Your task to perform on an android device: toggle javascript in the chrome app Image 0: 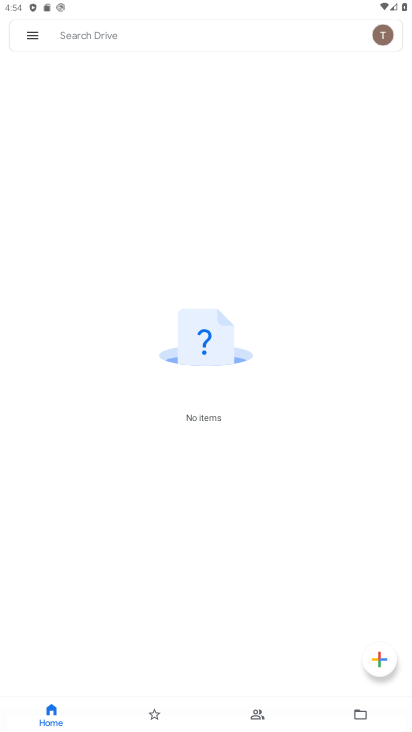
Step 0: press home button
Your task to perform on an android device: toggle javascript in the chrome app Image 1: 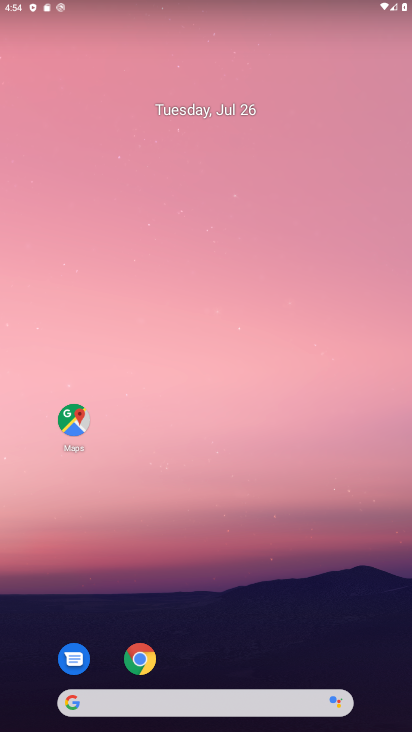
Step 1: drag from (248, 648) to (244, 16)
Your task to perform on an android device: toggle javascript in the chrome app Image 2: 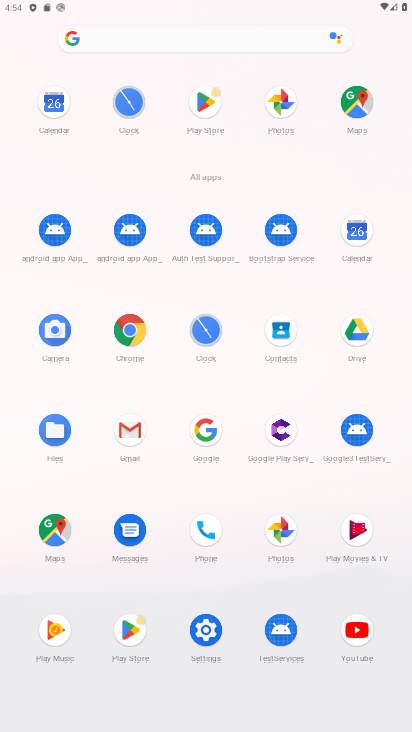
Step 2: click (131, 328)
Your task to perform on an android device: toggle javascript in the chrome app Image 3: 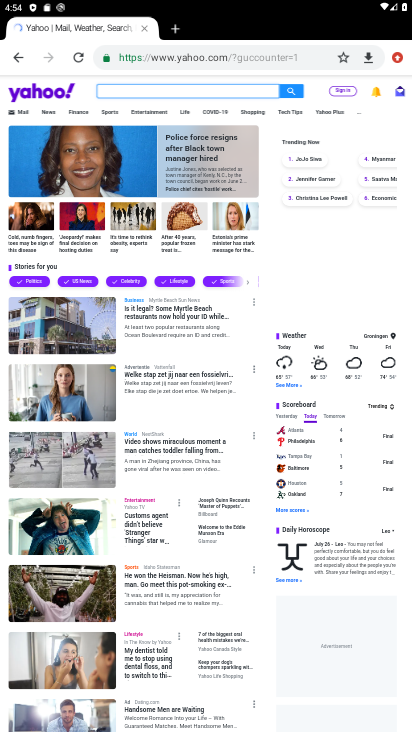
Step 3: click (396, 56)
Your task to perform on an android device: toggle javascript in the chrome app Image 4: 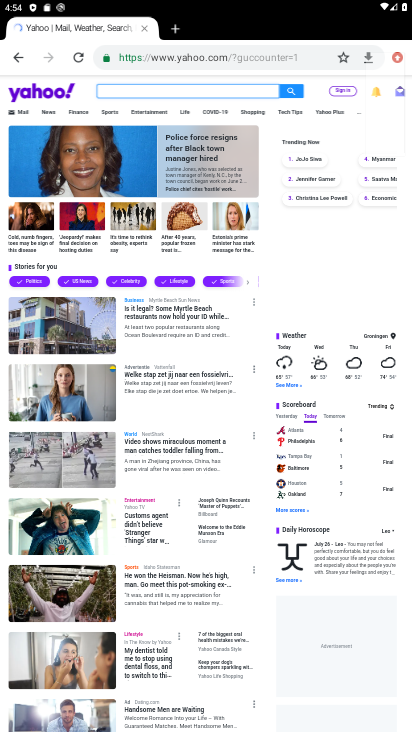
Step 4: drag from (396, 56) to (350, 271)
Your task to perform on an android device: toggle javascript in the chrome app Image 5: 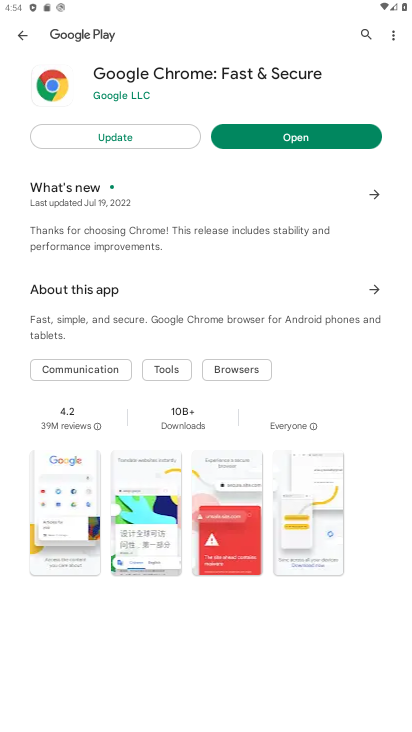
Step 5: press home button
Your task to perform on an android device: toggle javascript in the chrome app Image 6: 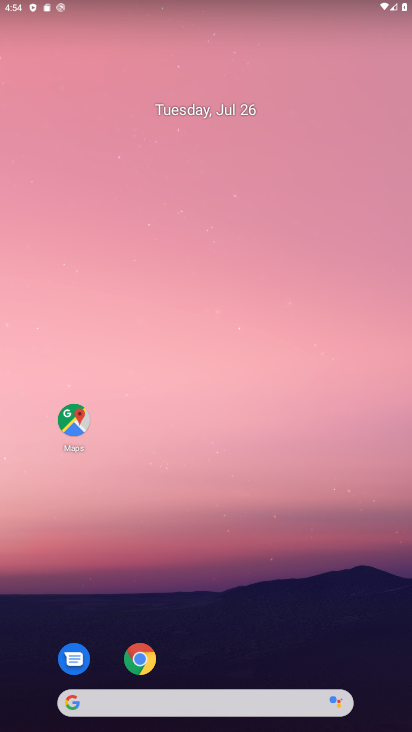
Step 6: drag from (254, 653) to (266, 65)
Your task to perform on an android device: toggle javascript in the chrome app Image 7: 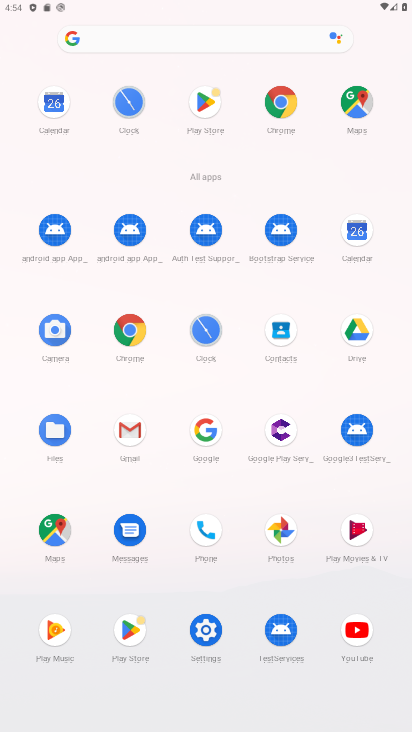
Step 7: click (265, 93)
Your task to perform on an android device: toggle javascript in the chrome app Image 8: 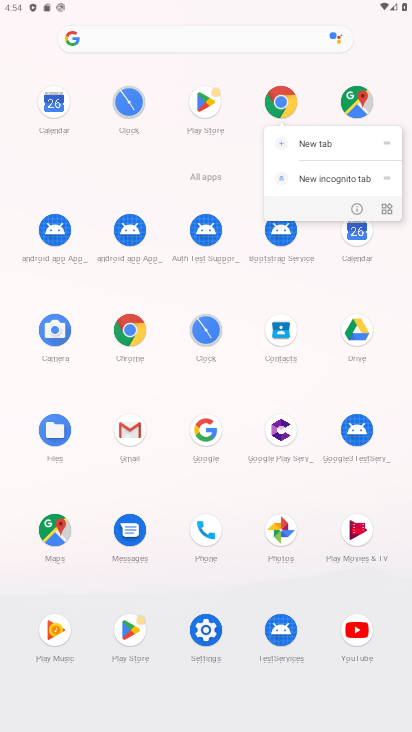
Step 8: click (276, 96)
Your task to perform on an android device: toggle javascript in the chrome app Image 9: 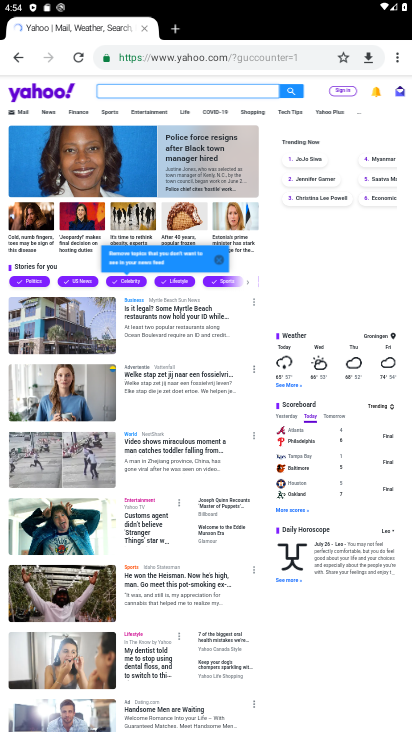
Step 9: drag from (393, 53) to (274, 420)
Your task to perform on an android device: toggle javascript in the chrome app Image 10: 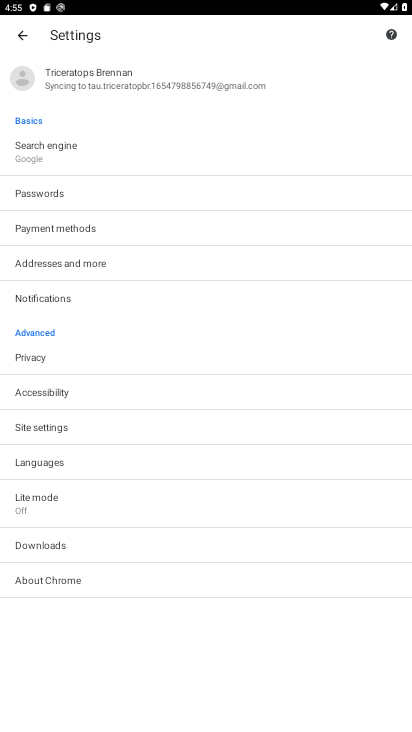
Step 10: click (35, 423)
Your task to perform on an android device: toggle javascript in the chrome app Image 11: 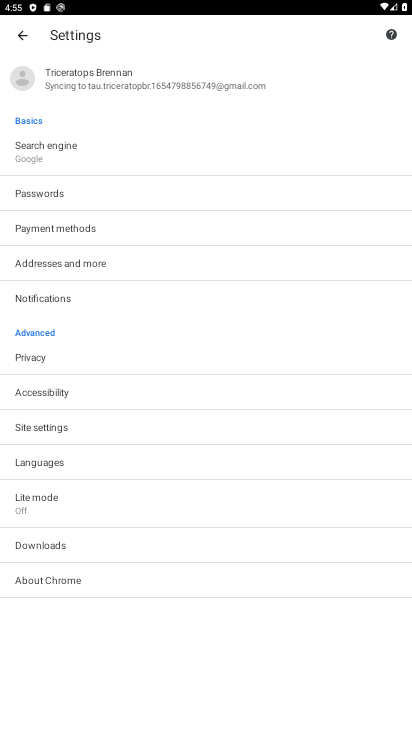
Step 11: click (38, 421)
Your task to perform on an android device: toggle javascript in the chrome app Image 12: 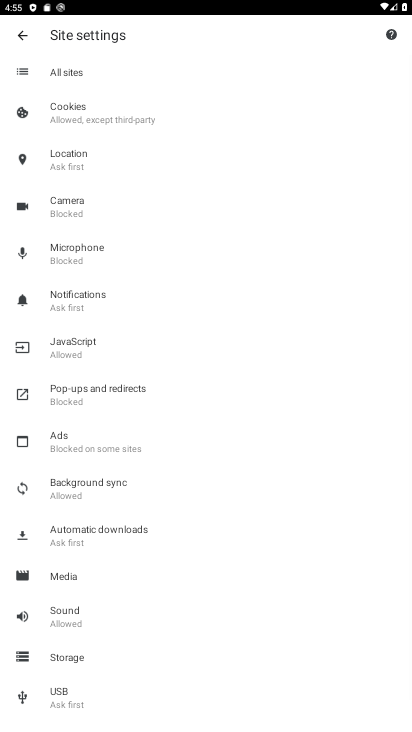
Step 12: click (95, 336)
Your task to perform on an android device: toggle javascript in the chrome app Image 13: 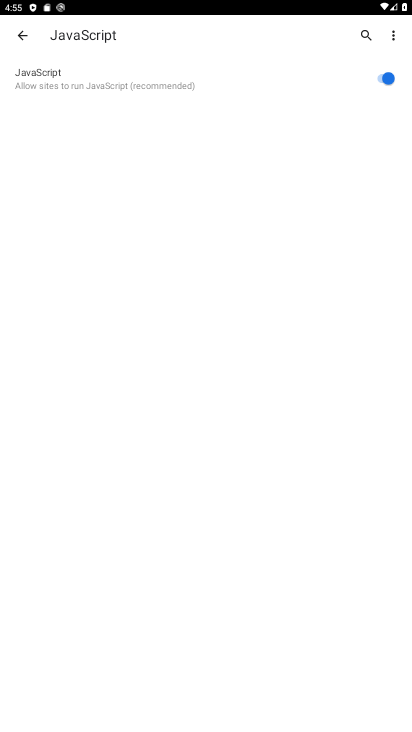
Step 13: click (372, 73)
Your task to perform on an android device: toggle javascript in the chrome app Image 14: 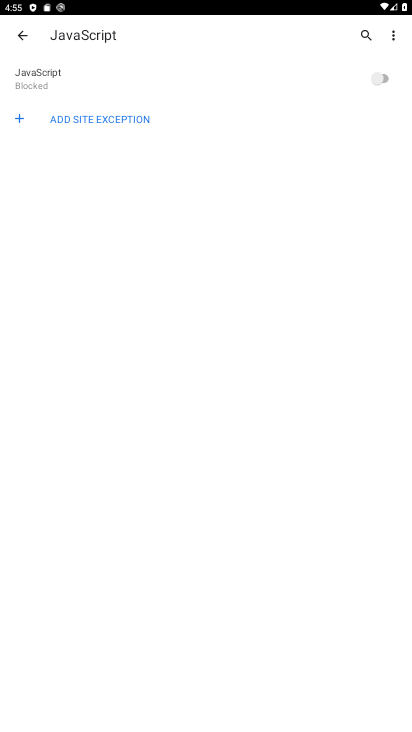
Step 14: task complete